Your task to perform on an android device: Check the weather Image 0: 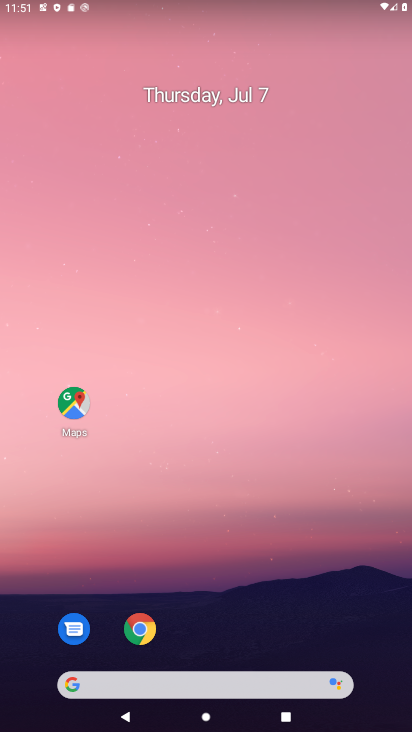
Step 0: drag from (5, 243) to (390, 276)
Your task to perform on an android device: Check the weather Image 1: 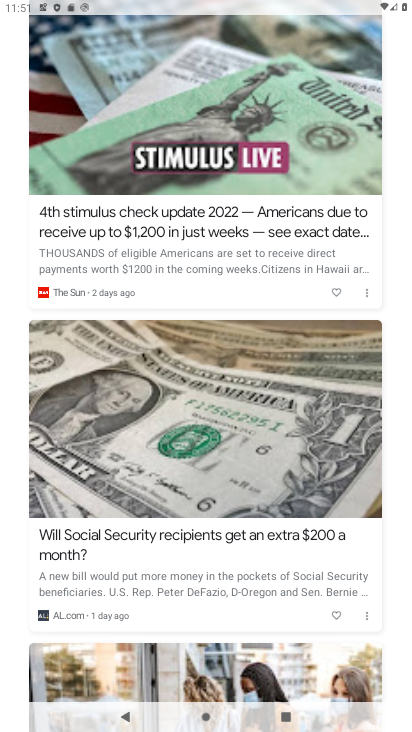
Step 1: drag from (387, 95) to (396, 447)
Your task to perform on an android device: Check the weather Image 2: 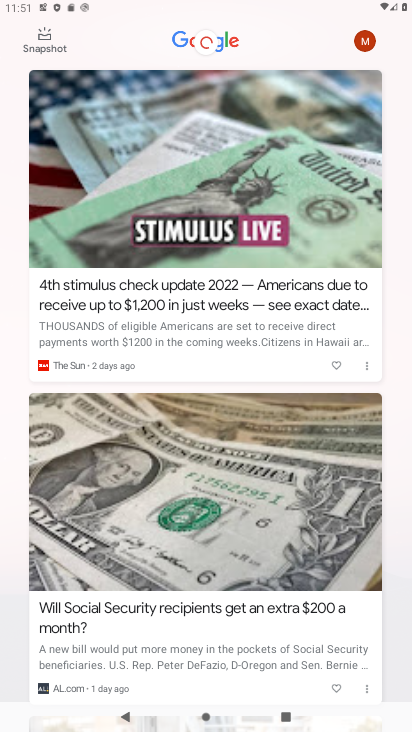
Step 2: drag from (401, 219) to (1, 206)
Your task to perform on an android device: Check the weather Image 3: 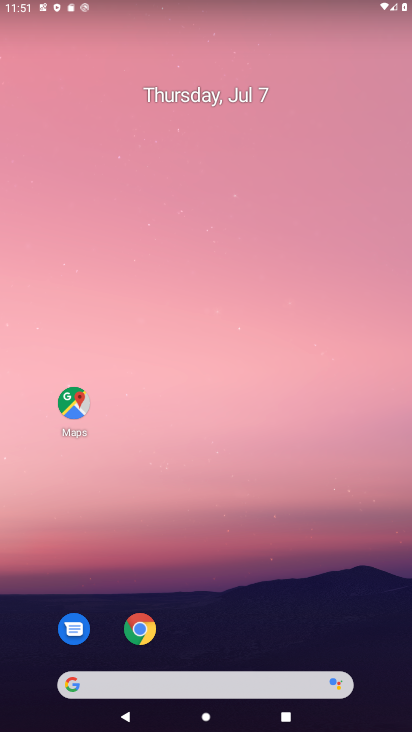
Step 3: click (122, 688)
Your task to perform on an android device: Check the weather Image 4: 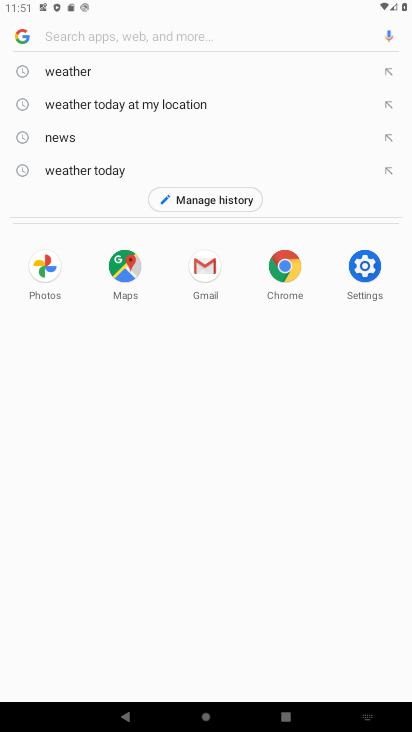
Step 4: click (64, 67)
Your task to perform on an android device: Check the weather Image 5: 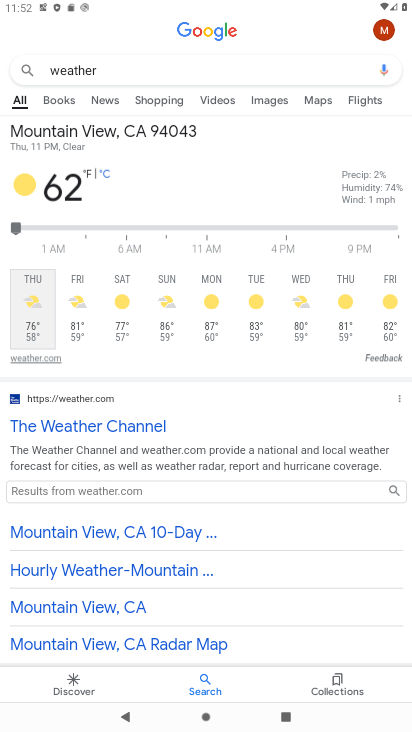
Step 5: task complete